Your task to perform on an android device: Open CNN.com Image 0: 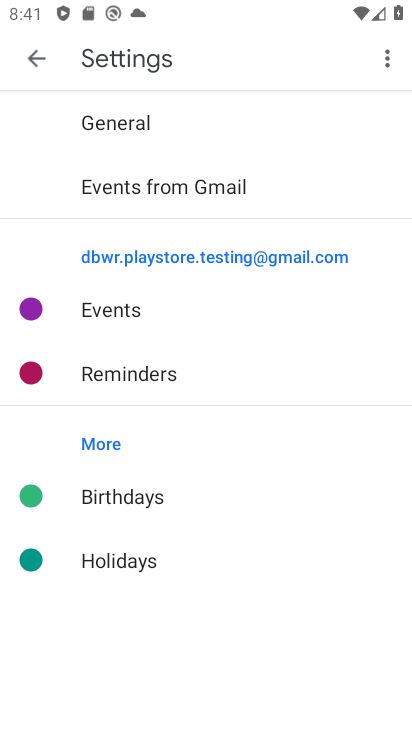
Step 0: press home button
Your task to perform on an android device: Open CNN.com Image 1: 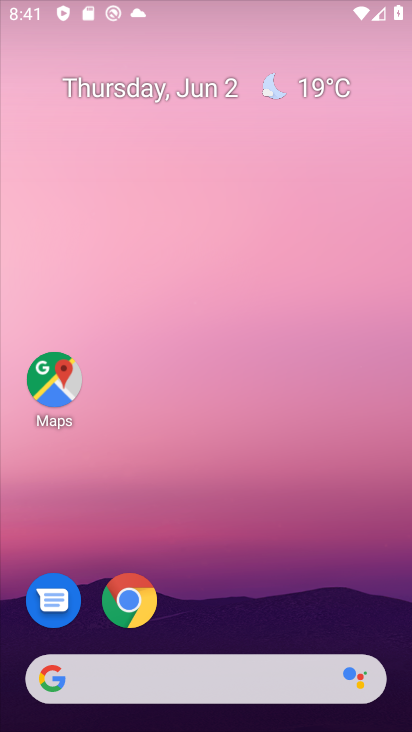
Step 1: click (126, 594)
Your task to perform on an android device: Open CNN.com Image 2: 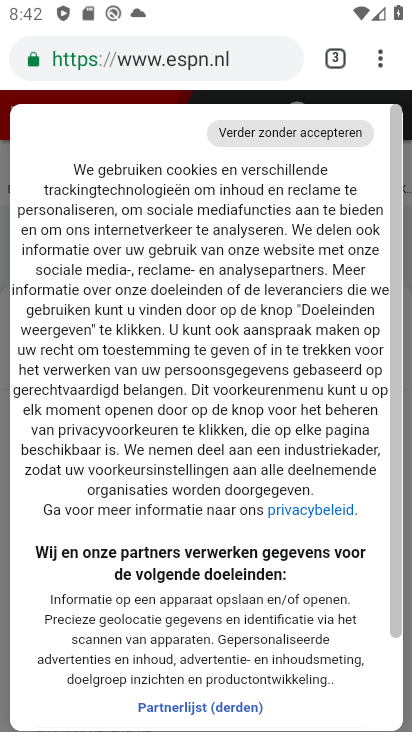
Step 2: click (331, 63)
Your task to perform on an android device: Open CNN.com Image 3: 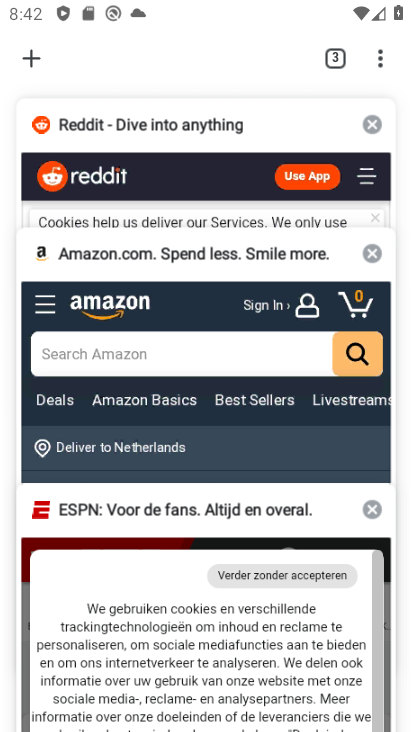
Step 3: click (33, 57)
Your task to perform on an android device: Open CNN.com Image 4: 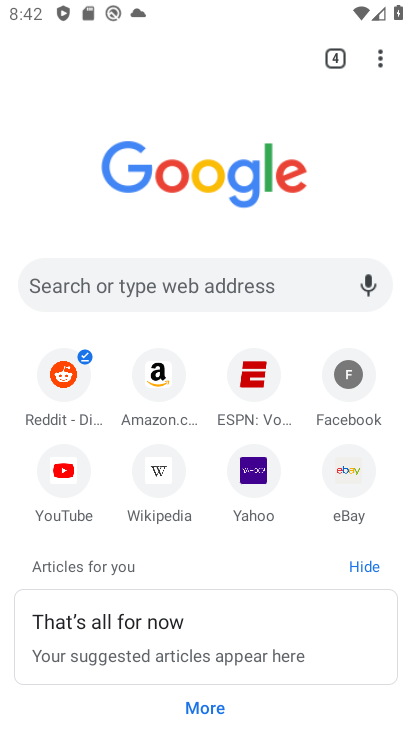
Step 4: click (188, 278)
Your task to perform on an android device: Open CNN.com Image 5: 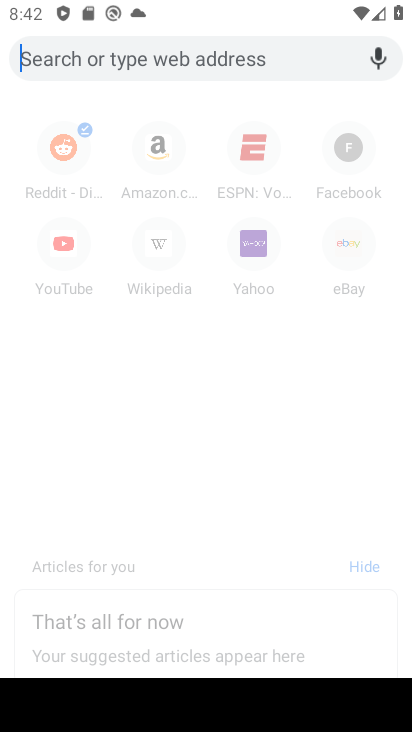
Step 5: type "CNN.com"
Your task to perform on an android device: Open CNN.com Image 6: 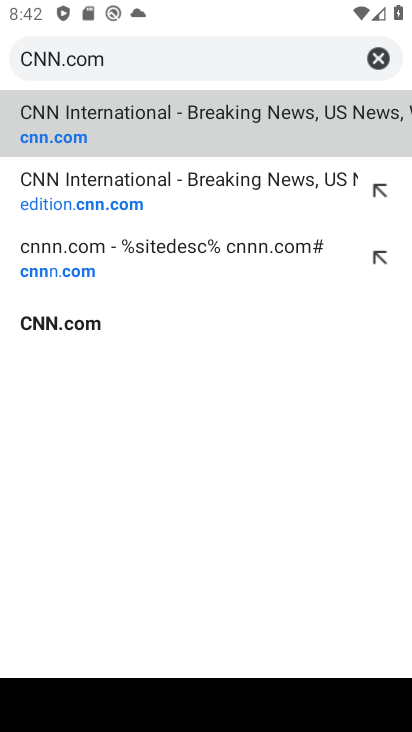
Step 6: click (196, 124)
Your task to perform on an android device: Open CNN.com Image 7: 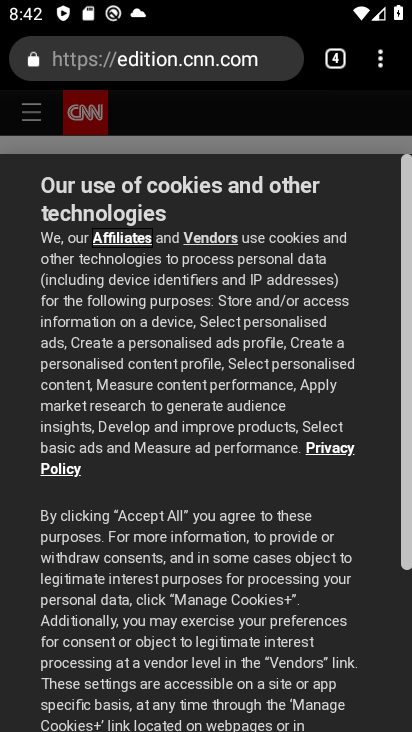
Step 7: task complete